Your task to perform on an android device: read, delete, or share a saved page in the chrome app Image 0: 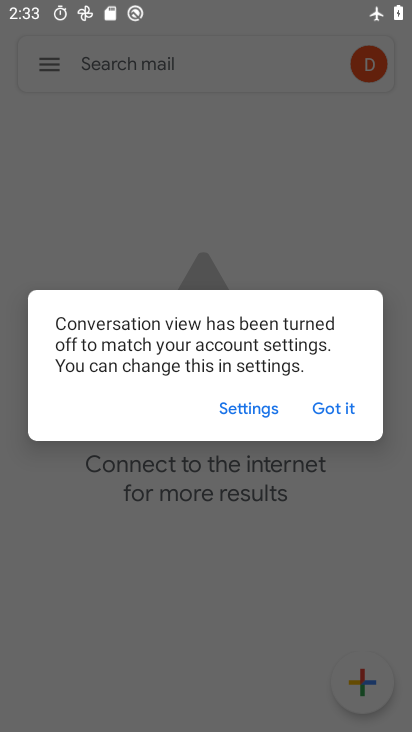
Step 0: press home button
Your task to perform on an android device: read, delete, or share a saved page in the chrome app Image 1: 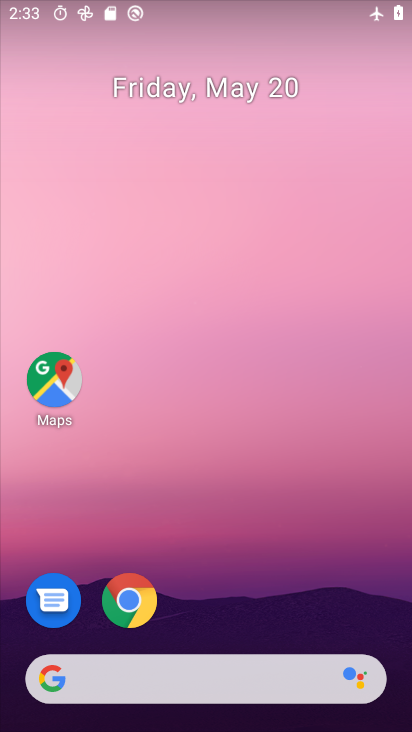
Step 1: drag from (241, 585) to (197, 120)
Your task to perform on an android device: read, delete, or share a saved page in the chrome app Image 2: 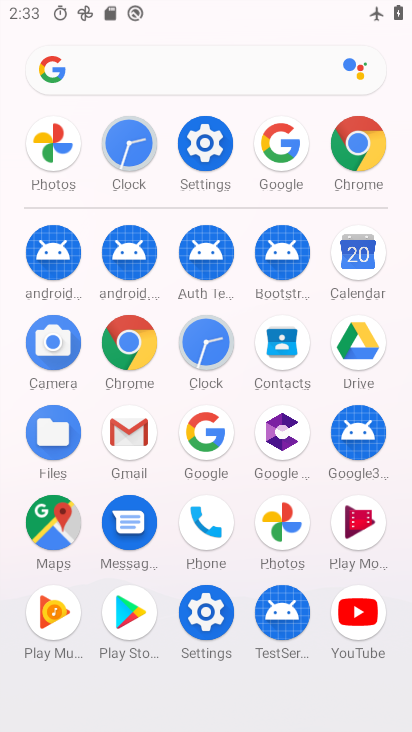
Step 2: click (362, 136)
Your task to perform on an android device: read, delete, or share a saved page in the chrome app Image 3: 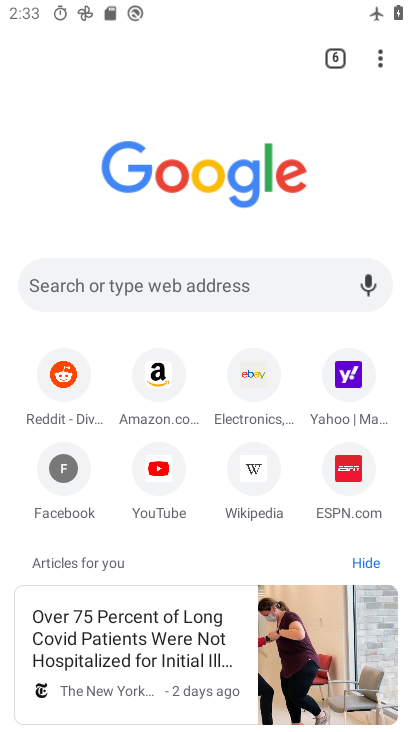
Step 3: click (376, 57)
Your task to perform on an android device: read, delete, or share a saved page in the chrome app Image 4: 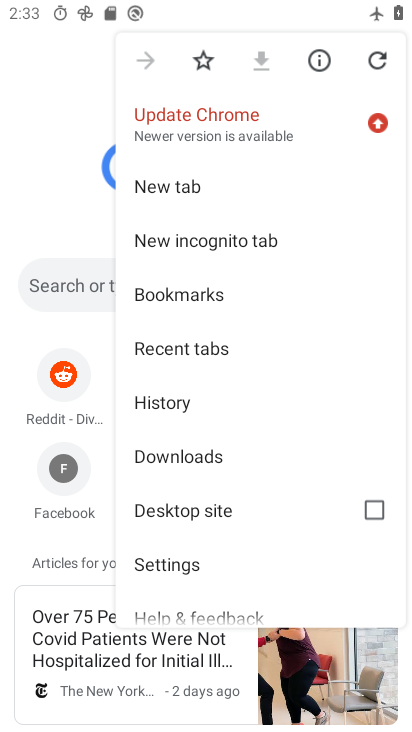
Step 4: click (197, 449)
Your task to perform on an android device: read, delete, or share a saved page in the chrome app Image 5: 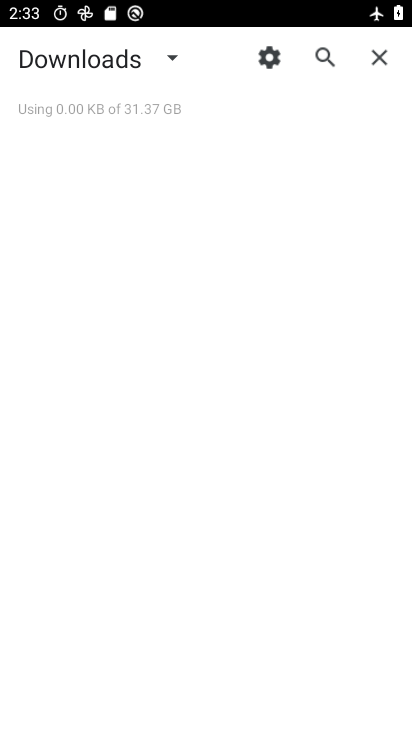
Step 5: click (129, 51)
Your task to perform on an android device: read, delete, or share a saved page in the chrome app Image 6: 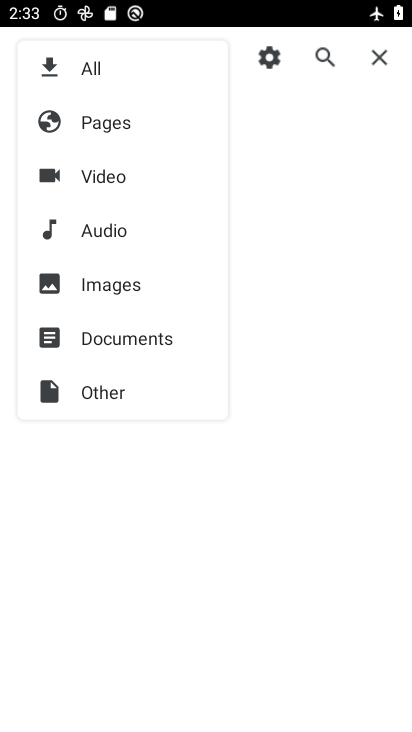
Step 6: click (131, 124)
Your task to perform on an android device: read, delete, or share a saved page in the chrome app Image 7: 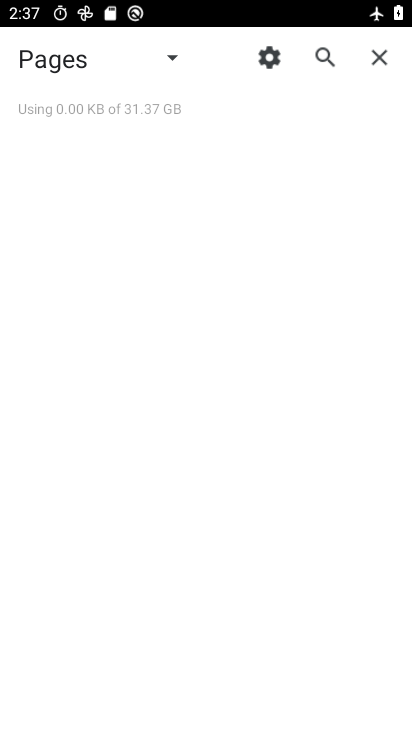
Step 7: task complete